Your task to perform on an android device: install app "Google Sheets" Image 0: 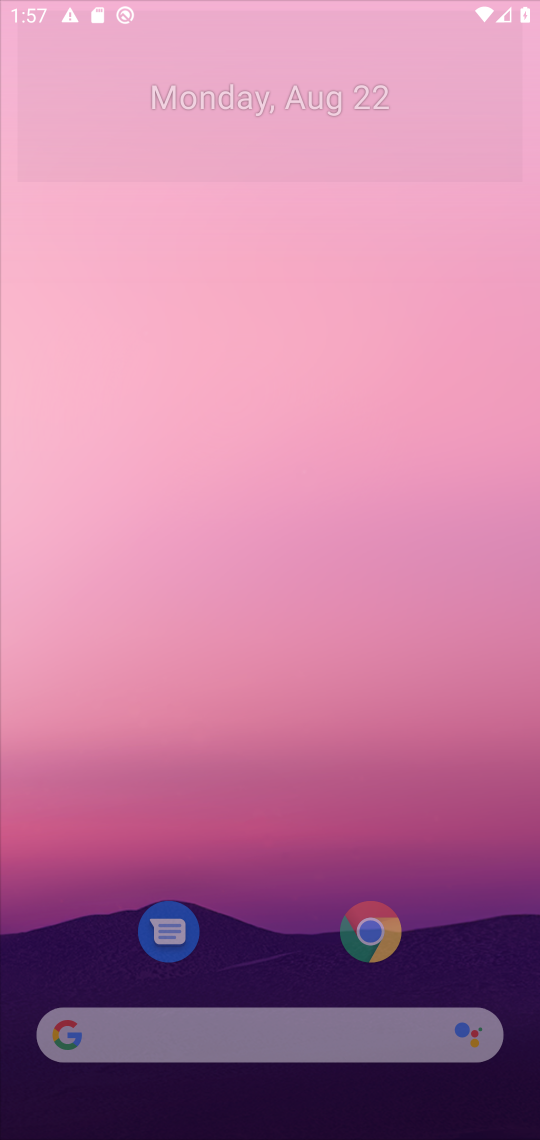
Step 0: press home button
Your task to perform on an android device: install app "Google Sheets" Image 1: 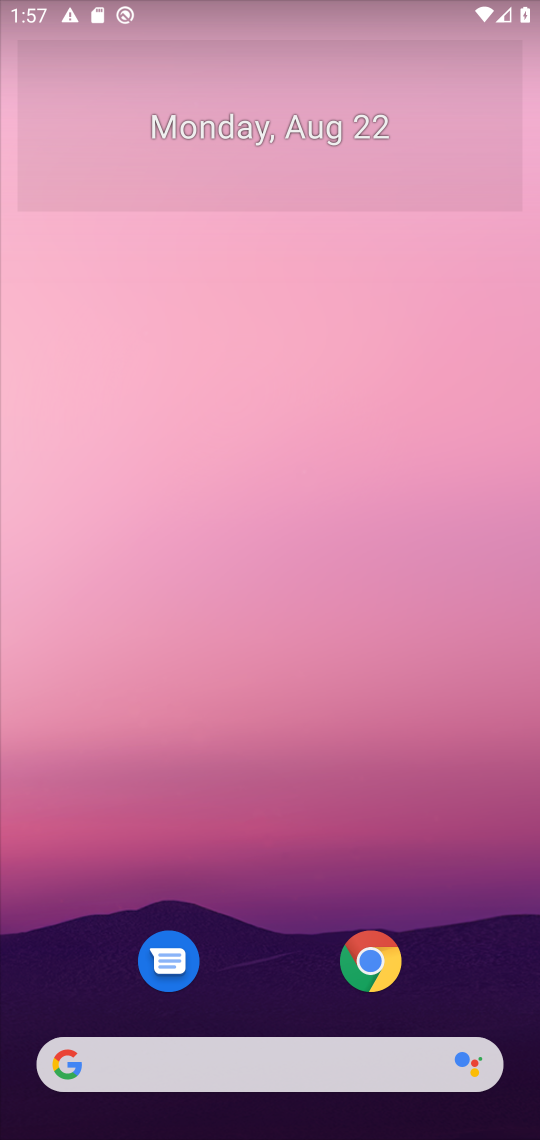
Step 1: drag from (474, 987) to (465, 143)
Your task to perform on an android device: install app "Google Sheets" Image 2: 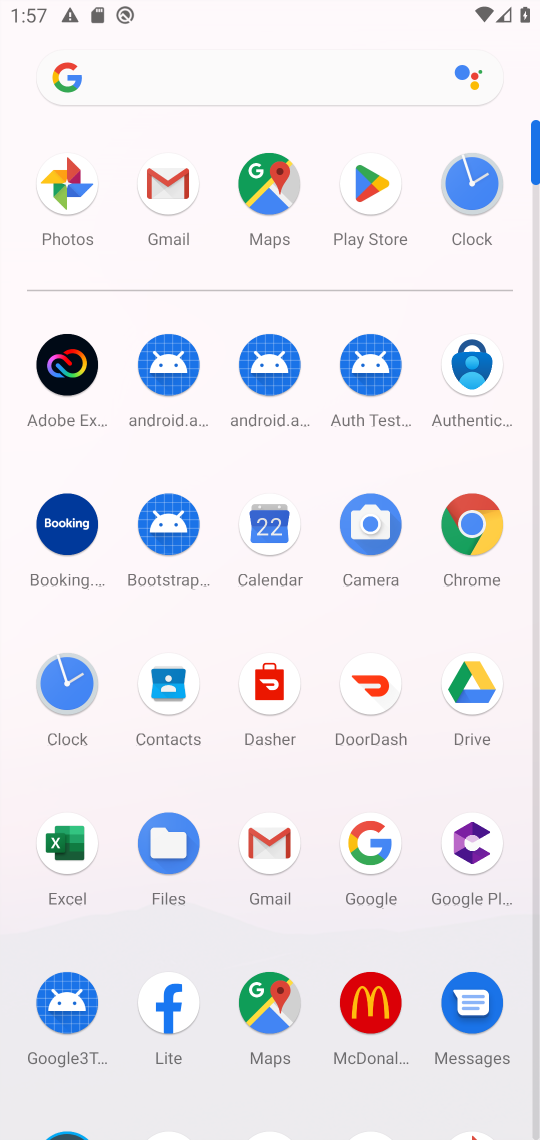
Step 2: click (367, 184)
Your task to perform on an android device: install app "Google Sheets" Image 3: 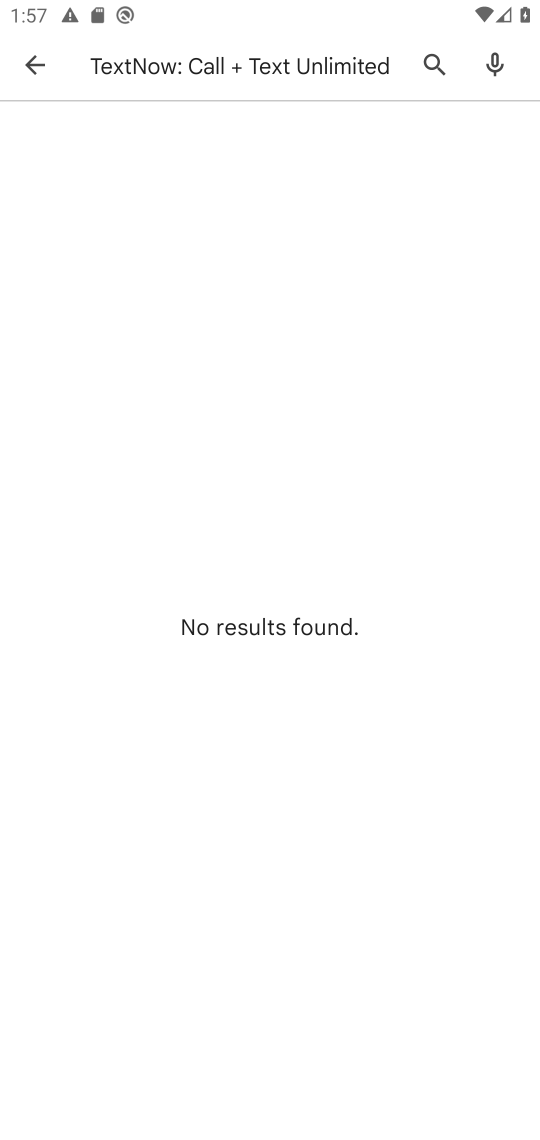
Step 3: press back button
Your task to perform on an android device: install app "Google Sheets" Image 4: 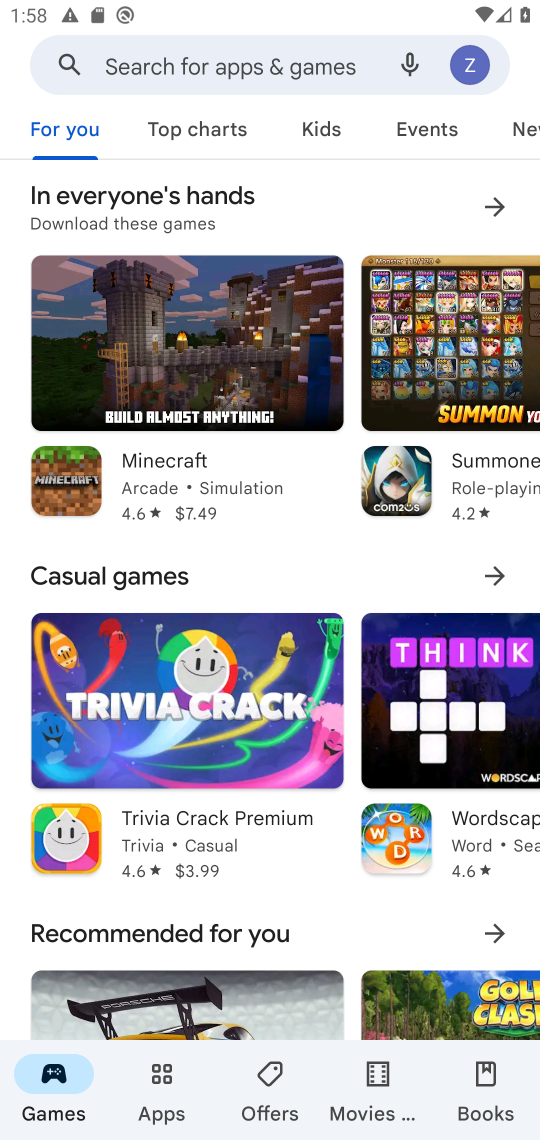
Step 4: click (262, 70)
Your task to perform on an android device: install app "Google Sheets" Image 5: 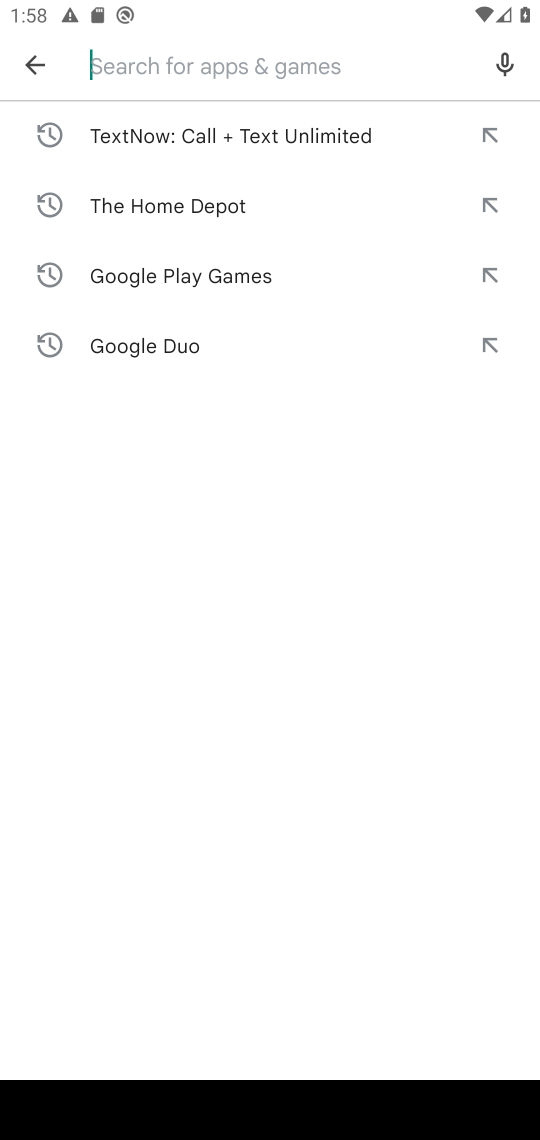
Step 5: type "Google Sheets"
Your task to perform on an android device: install app "Google Sheets" Image 6: 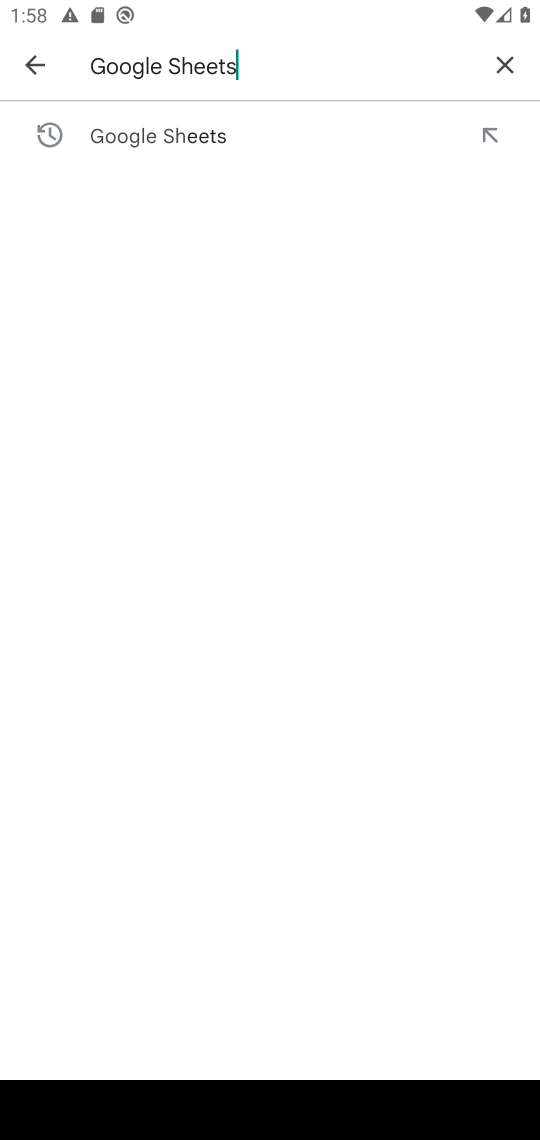
Step 6: press enter
Your task to perform on an android device: install app "Google Sheets" Image 7: 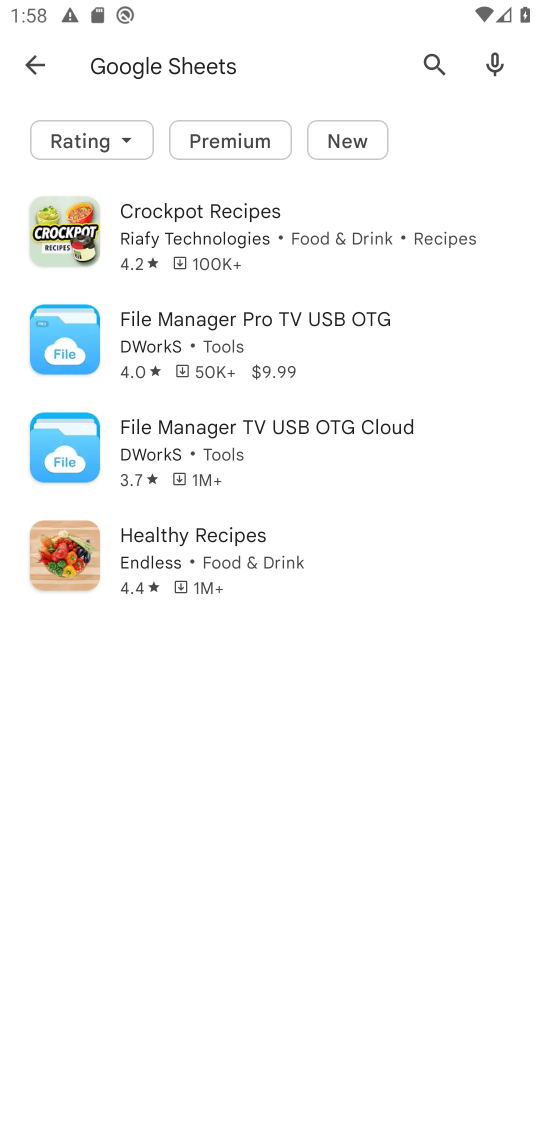
Step 7: task complete